Your task to perform on an android device: Open eBay Image 0: 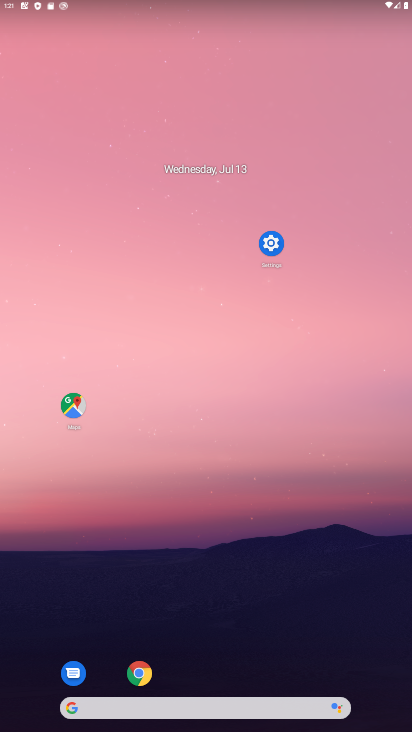
Step 0: click (138, 684)
Your task to perform on an android device: Open eBay Image 1: 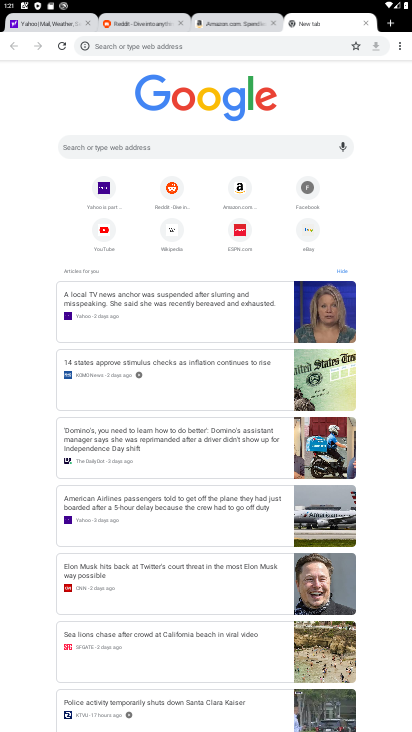
Step 1: click (300, 231)
Your task to perform on an android device: Open eBay Image 2: 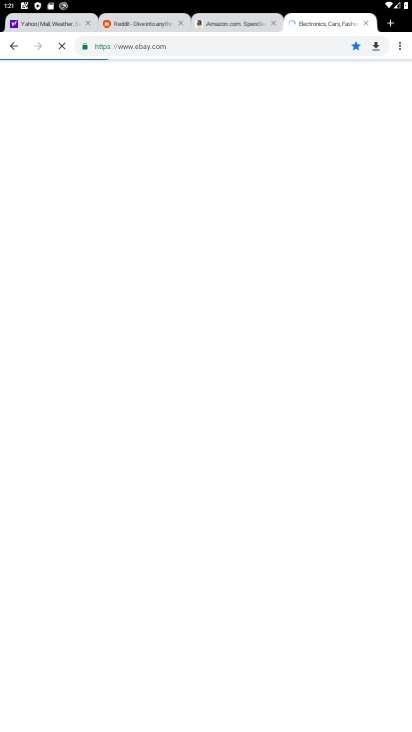
Step 2: task complete